Your task to perform on an android device: Open Yahoo.com Image 0: 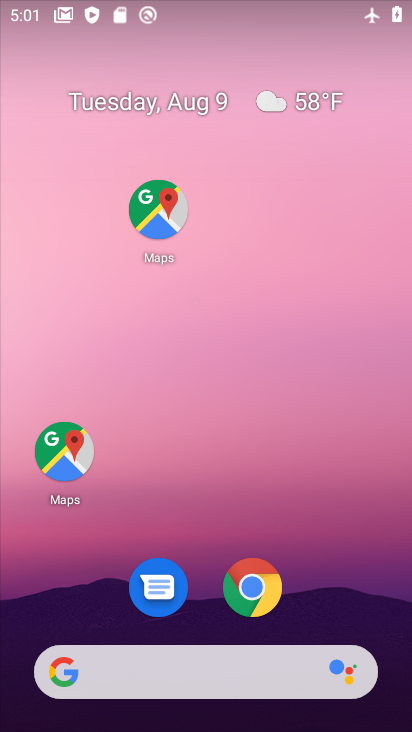
Step 0: press back button
Your task to perform on an android device: Open Yahoo.com Image 1: 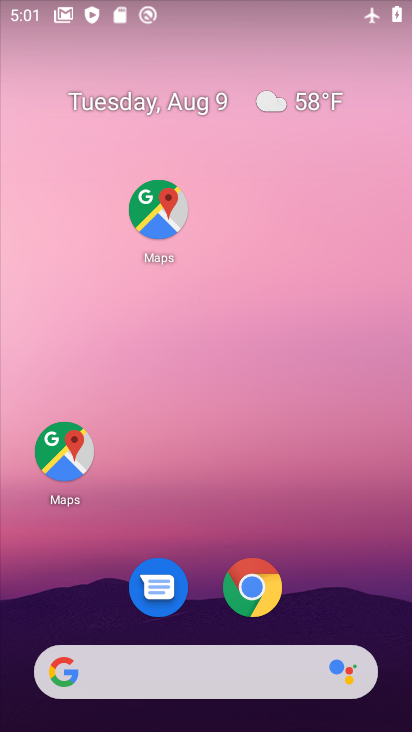
Step 1: click (209, 149)
Your task to perform on an android device: Open Yahoo.com Image 2: 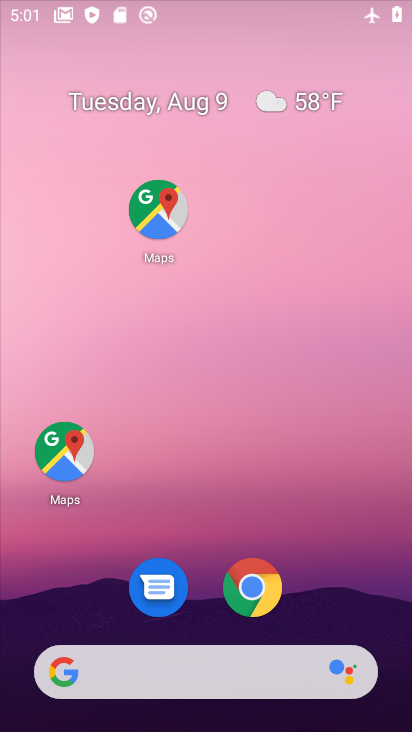
Step 2: drag from (189, 602) to (160, 135)
Your task to perform on an android device: Open Yahoo.com Image 3: 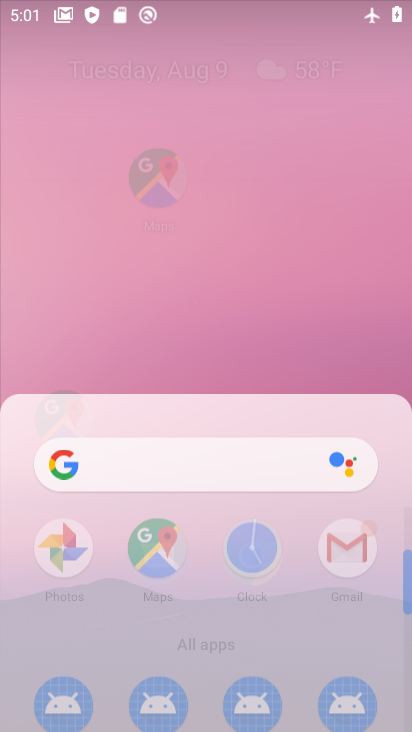
Step 3: drag from (174, 592) to (149, 113)
Your task to perform on an android device: Open Yahoo.com Image 4: 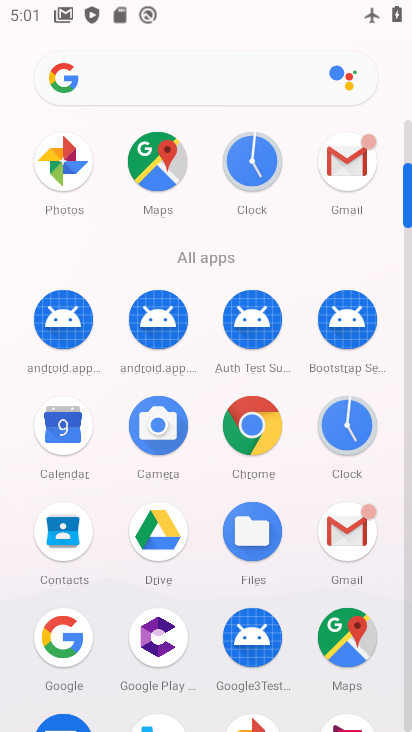
Step 4: drag from (232, 536) to (227, 171)
Your task to perform on an android device: Open Yahoo.com Image 5: 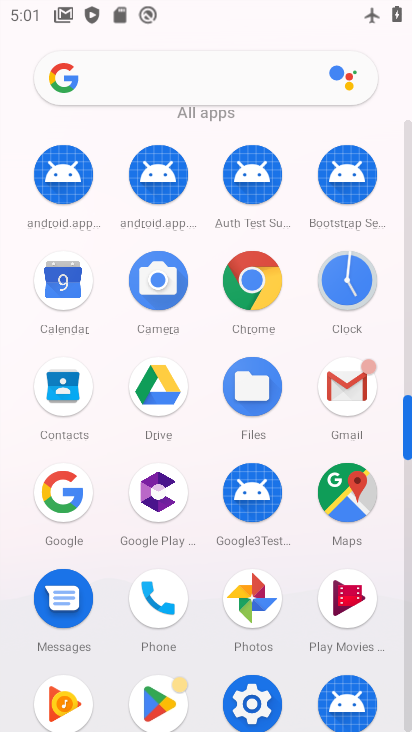
Step 5: click (259, 698)
Your task to perform on an android device: Open Yahoo.com Image 6: 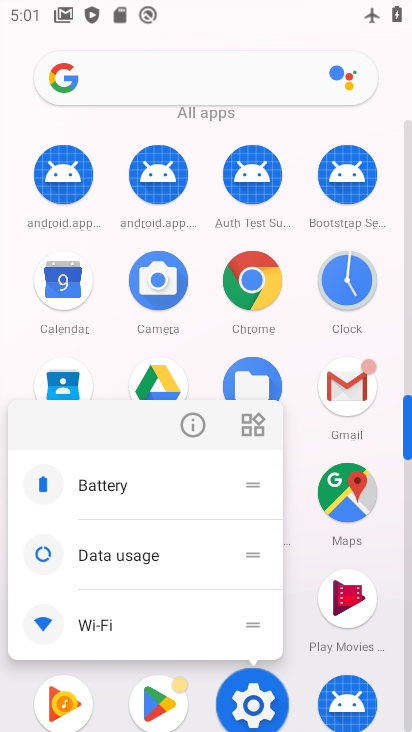
Step 6: click (252, 703)
Your task to perform on an android device: Open Yahoo.com Image 7: 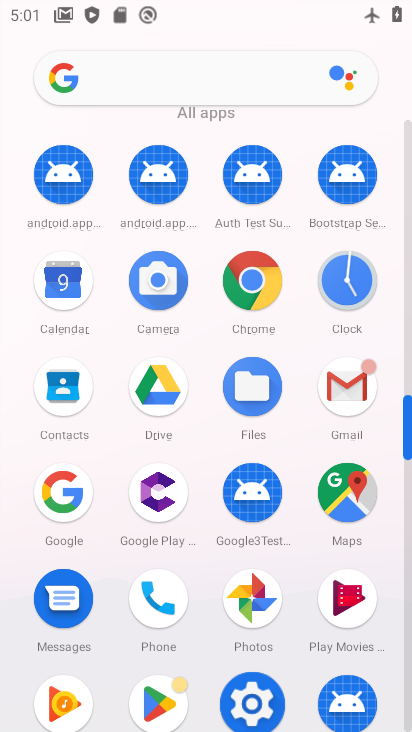
Step 7: click (252, 705)
Your task to perform on an android device: Open Yahoo.com Image 8: 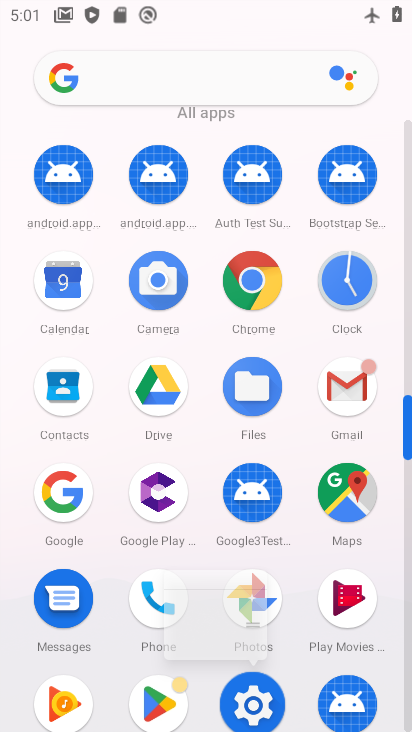
Step 8: click (253, 706)
Your task to perform on an android device: Open Yahoo.com Image 9: 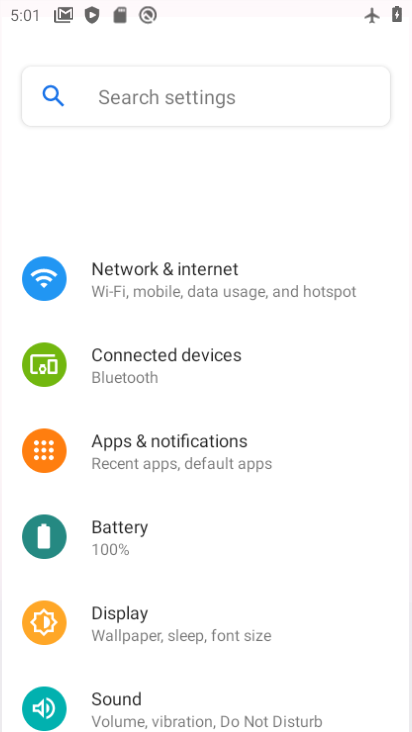
Step 9: click (255, 706)
Your task to perform on an android device: Open Yahoo.com Image 10: 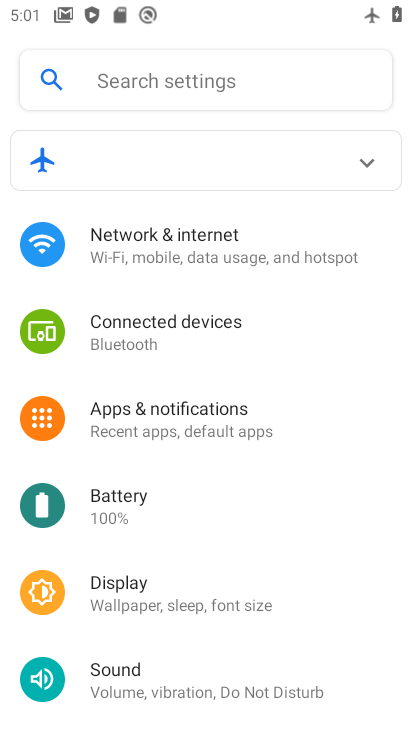
Step 10: click (253, 712)
Your task to perform on an android device: Open Yahoo.com Image 11: 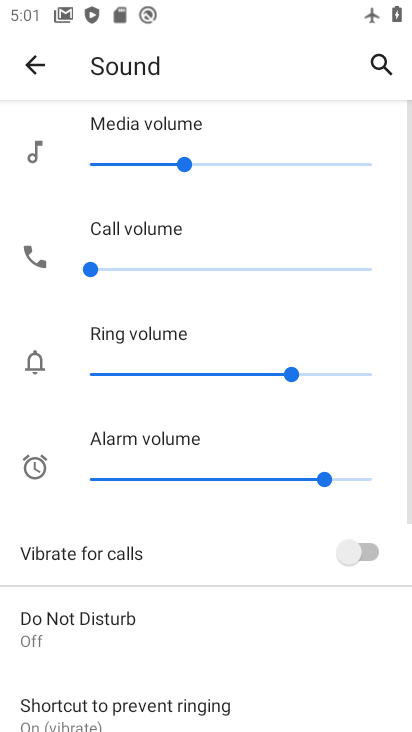
Step 11: click (24, 60)
Your task to perform on an android device: Open Yahoo.com Image 12: 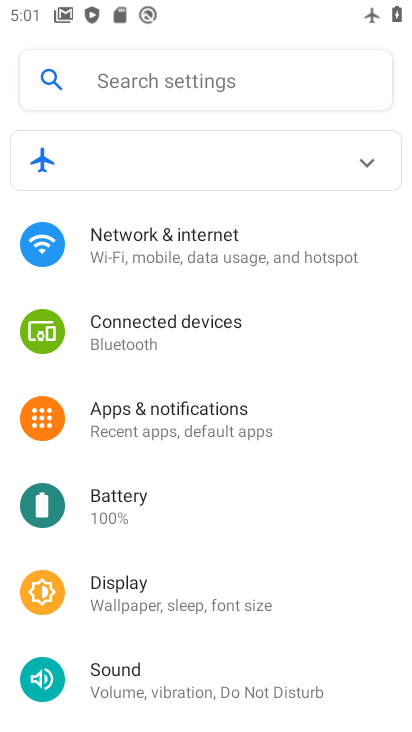
Step 12: click (219, 245)
Your task to perform on an android device: Open Yahoo.com Image 13: 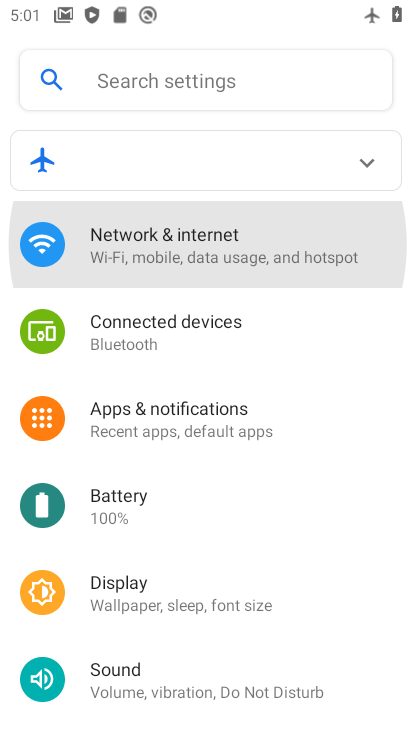
Step 13: click (219, 245)
Your task to perform on an android device: Open Yahoo.com Image 14: 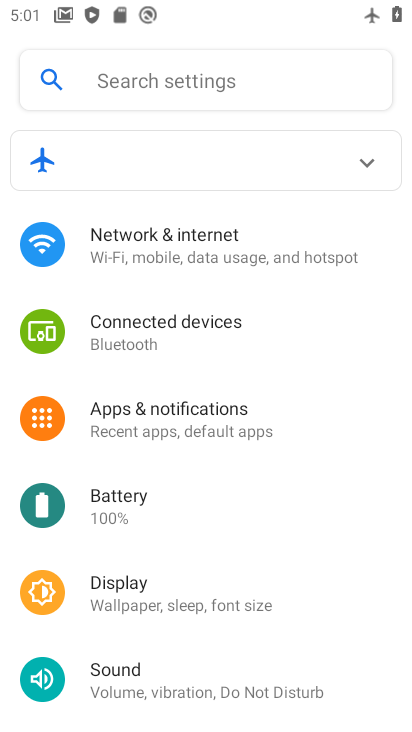
Step 14: click (218, 246)
Your task to perform on an android device: Open Yahoo.com Image 15: 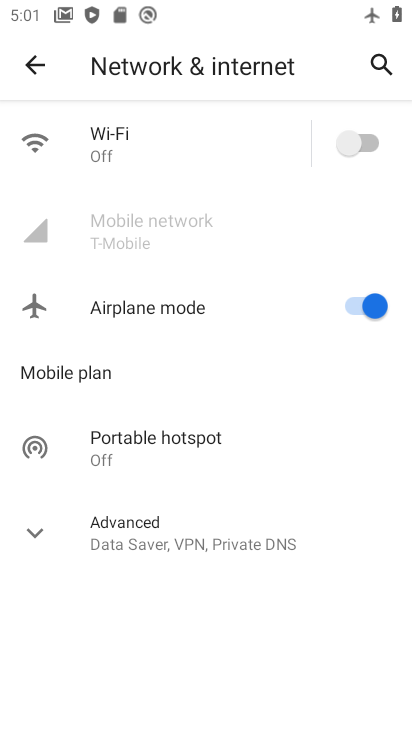
Step 15: click (353, 134)
Your task to perform on an android device: Open Yahoo.com Image 16: 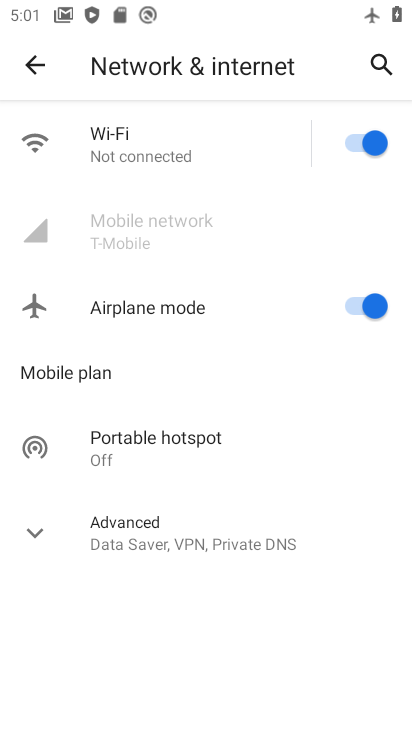
Step 16: click (373, 308)
Your task to perform on an android device: Open Yahoo.com Image 17: 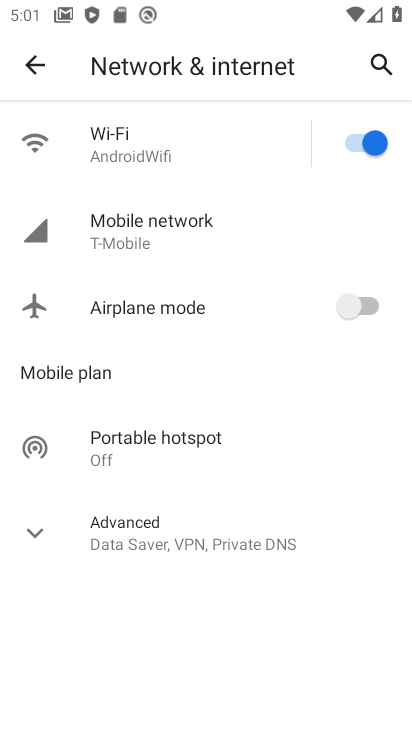
Step 17: click (27, 65)
Your task to perform on an android device: Open Yahoo.com Image 18: 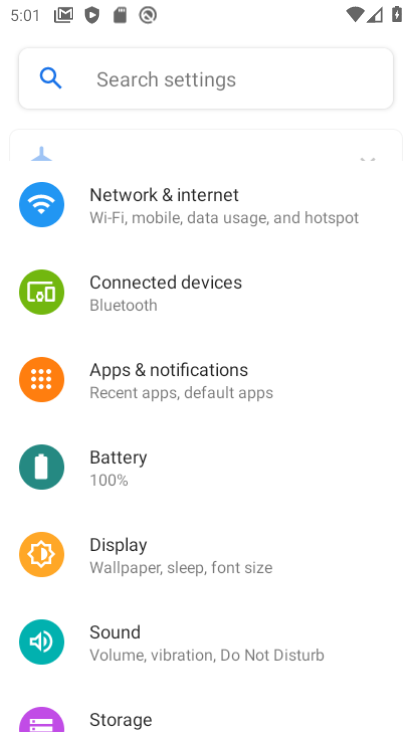
Step 18: click (34, 64)
Your task to perform on an android device: Open Yahoo.com Image 19: 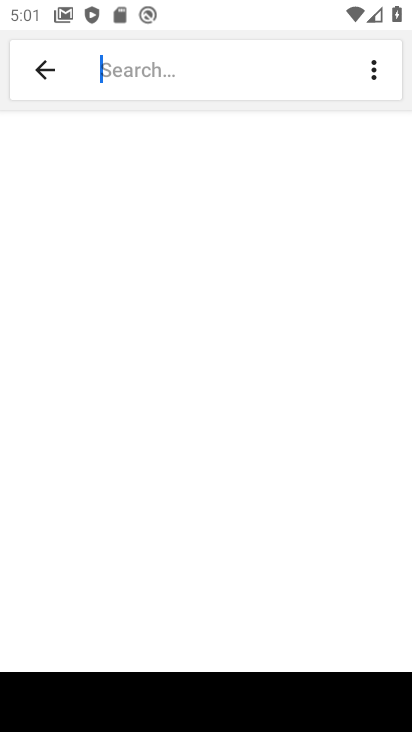
Step 19: press back button
Your task to perform on an android device: Open Yahoo.com Image 20: 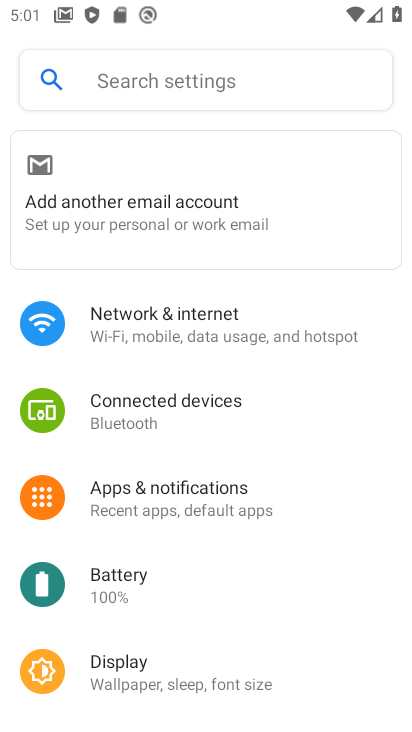
Step 20: press home button
Your task to perform on an android device: Open Yahoo.com Image 21: 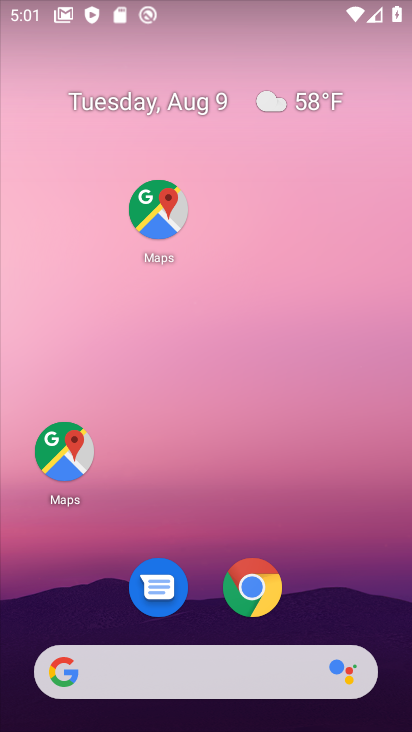
Step 21: drag from (338, 659) to (222, 48)
Your task to perform on an android device: Open Yahoo.com Image 22: 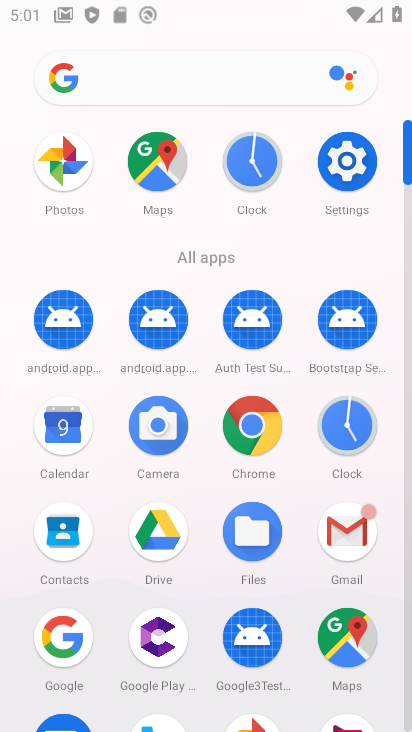
Step 22: drag from (244, 389) to (204, 43)
Your task to perform on an android device: Open Yahoo.com Image 23: 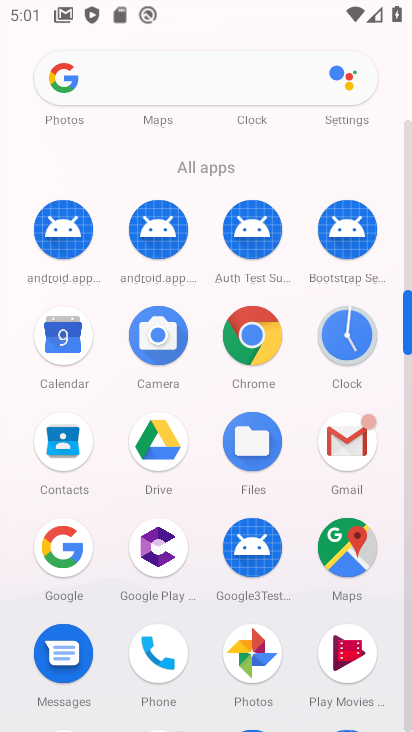
Step 23: click (258, 326)
Your task to perform on an android device: Open Yahoo.com Image 24: 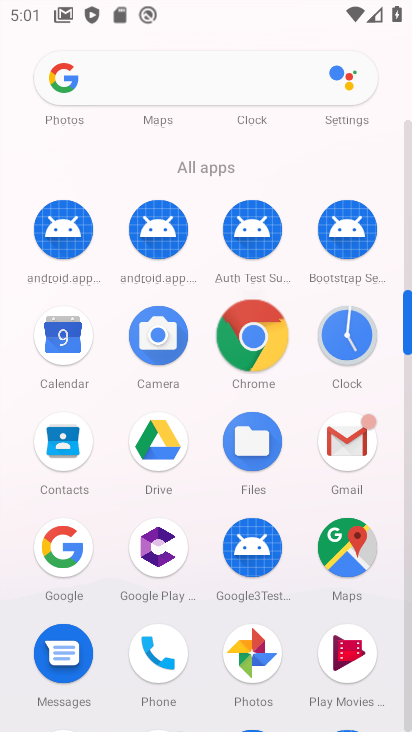
Step 24: click (258, 326)
Your task to perform on an android device: Open Yahoo.com Image 25: 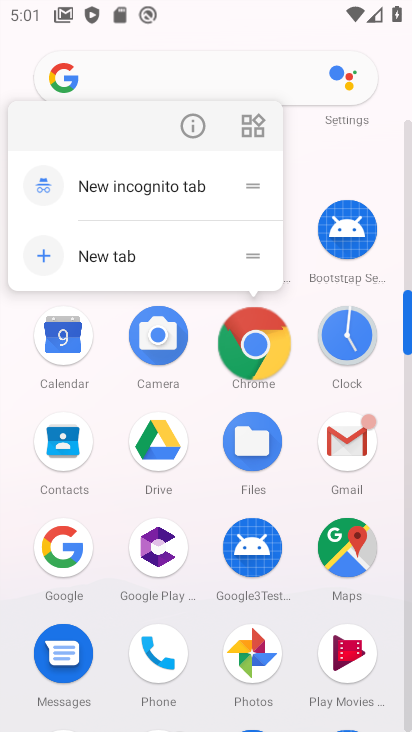
Step 25: click (263, 335)
Your task to perform on an android device: Open Yahoo.com Image 26: 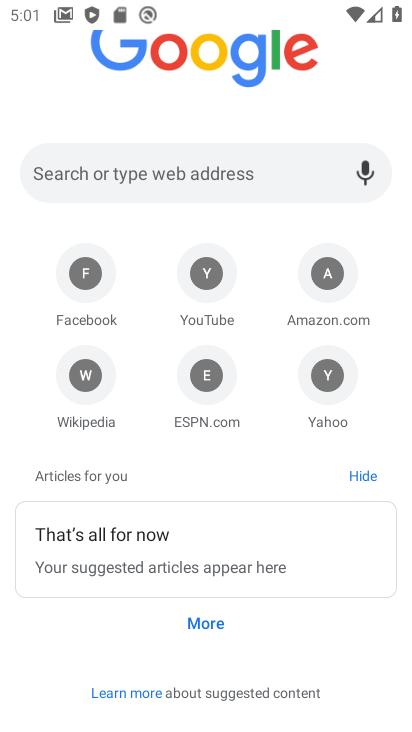
Step 26: click (333, 368)
Your task to perform on an android device: Open Yahoo.com Image 27: 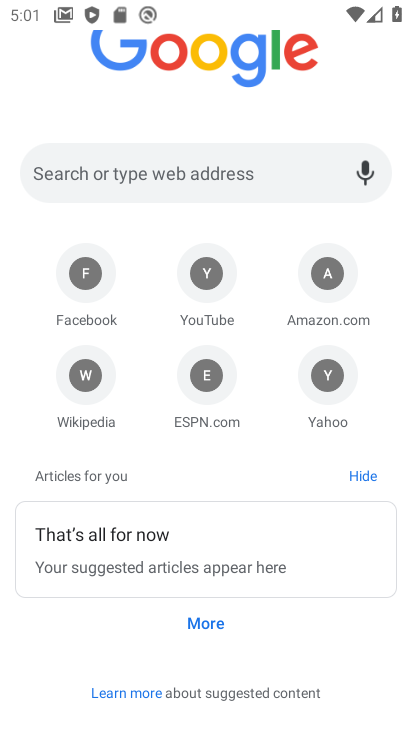
Step 27: click (333, 368)
Your task to perform on an android device: Open Yahoo.com Image 28: 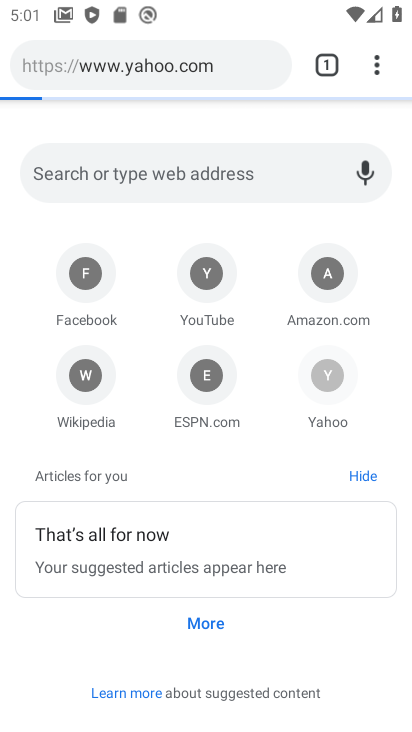
Step 28: click (333, 368)
Your task to perform on an android device: Open Yahoo.com Image 29: 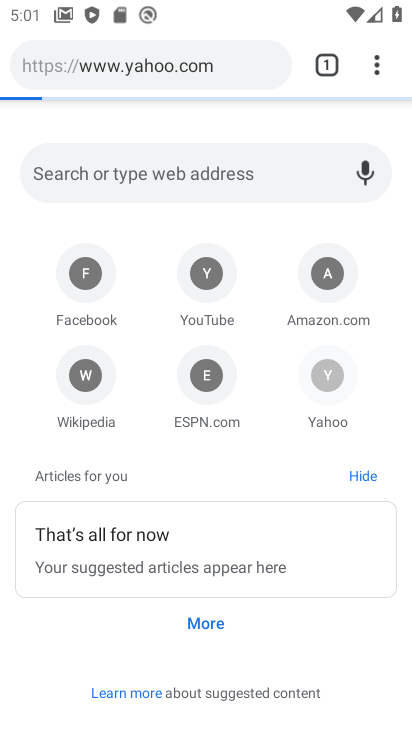
Step 29: click (334, 367)
Your task to perform on an android device: Open Yahoo.com Image 30: 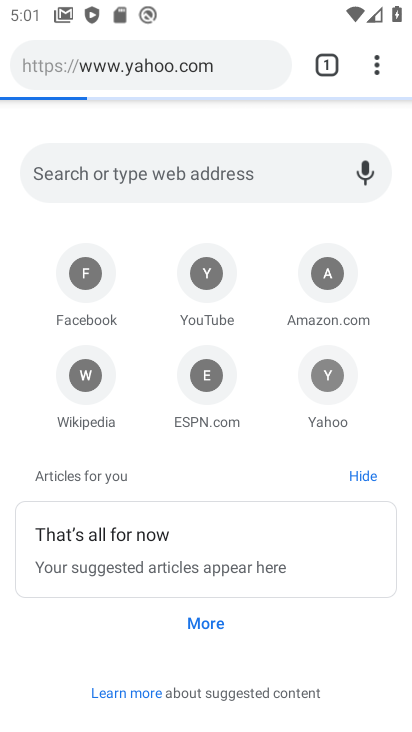
Step 30: click (334, 367)
Your task to perform on an android device: Open Yahoo.com Image 31: 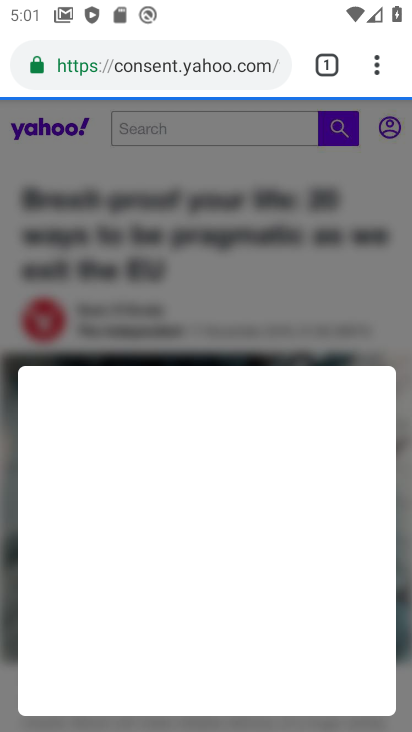
Step 31: task complete